Your task to perform on an android device: Empty the shopping cart on costco. Search for "razer blade" on costco, select the first entry, and add it to the cart. Image 0: 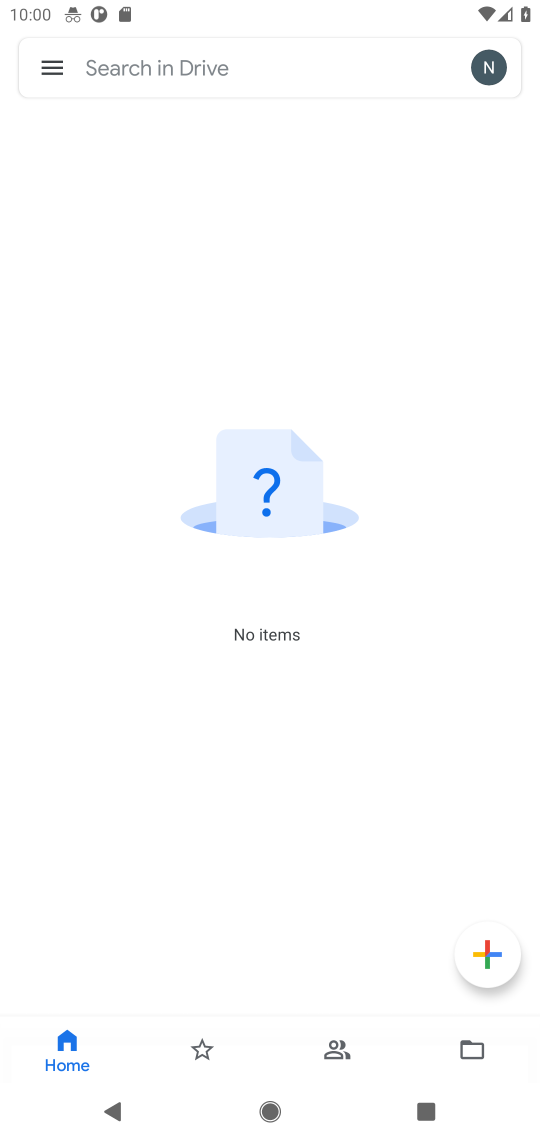
Step 0: press home button
Your task to perform on an android device: Empty the shopping cart on costco. Search for "razer blade" on costco, select the first entry, and add it to the cart. Image 1: 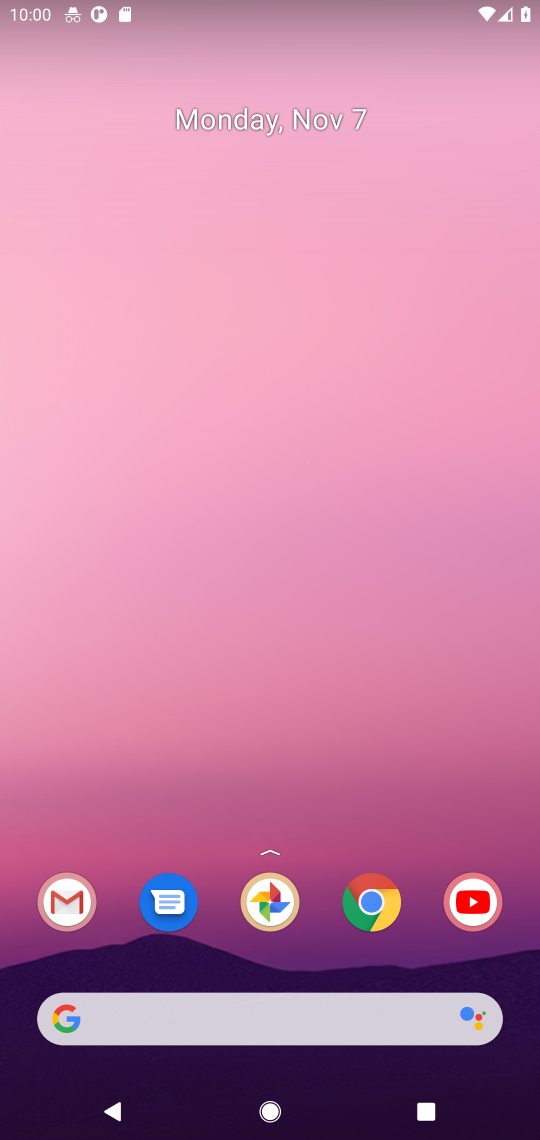
Step 1: click (375, 911)
Your task to perform on an android device: Empty the shopping cart on costco. Search for "razer blade" on costco, select the first entry, and add it to the cart. Image 2: 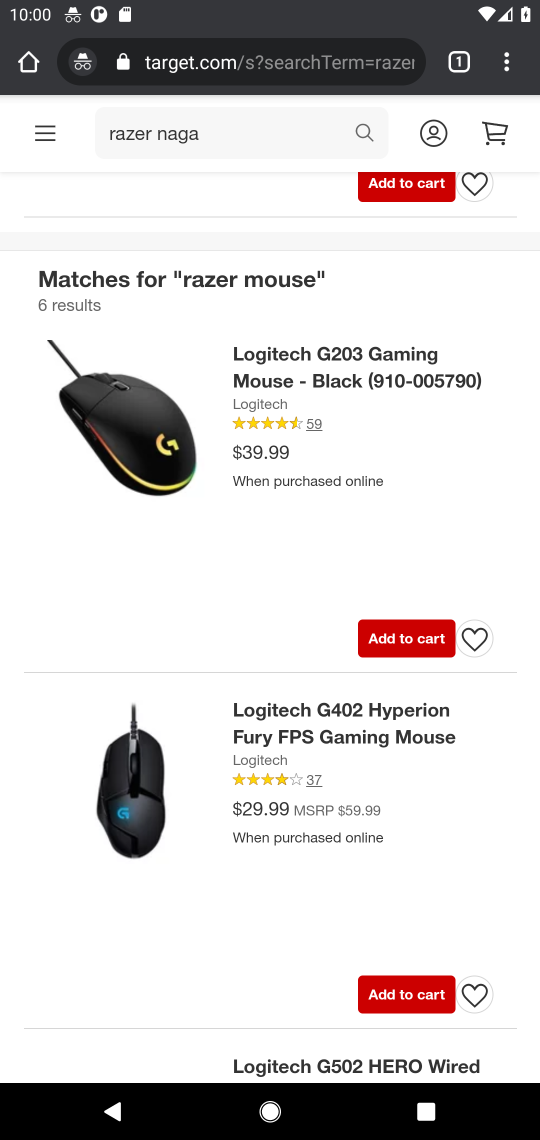
Step 2: click (255, 64)
Your task to perform on an android device: Empty the shopping cart on costco. Search for "razer blade" on costco, select the first entry, and add it to the cart. Image 3: 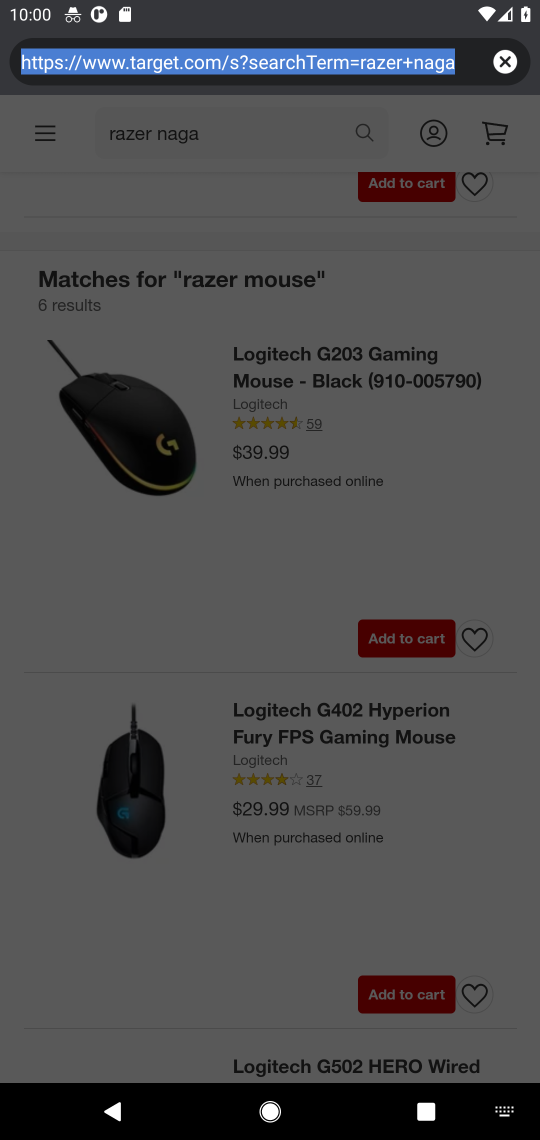
Step 3: type "costco.com"
Your task to perform on an android device: Empty the shopping cart on costco. Search for "razer blade" on costco, select the first entry, and add it to the cart. Image 4: 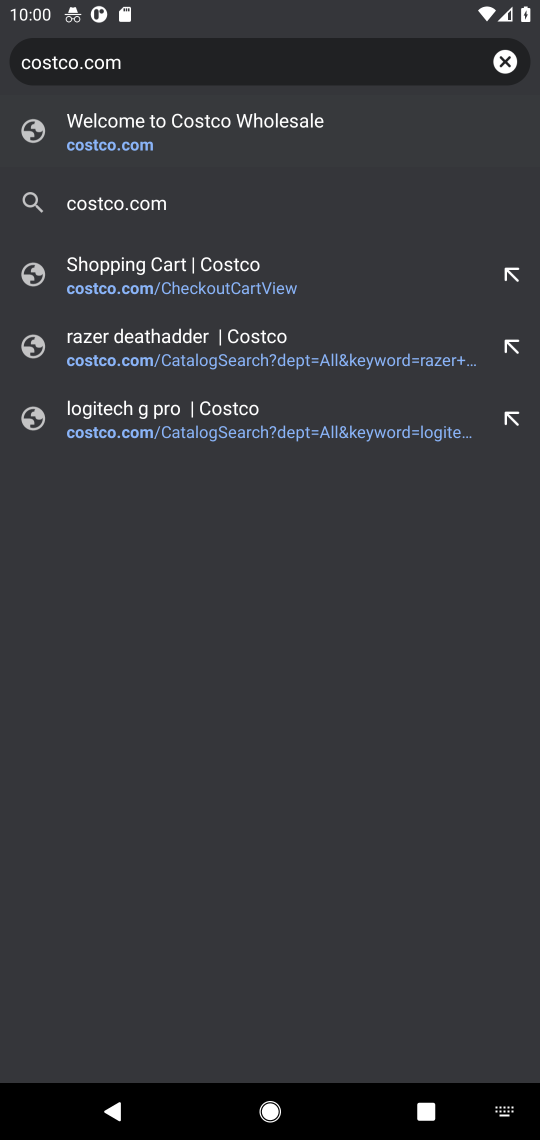
Step 4: click (90, 140)
Your task to perform on an android device: Empty the shopping cart on costco. Search for "razer blade" on costco, select the first entry, and add it to the cart. Image 5: 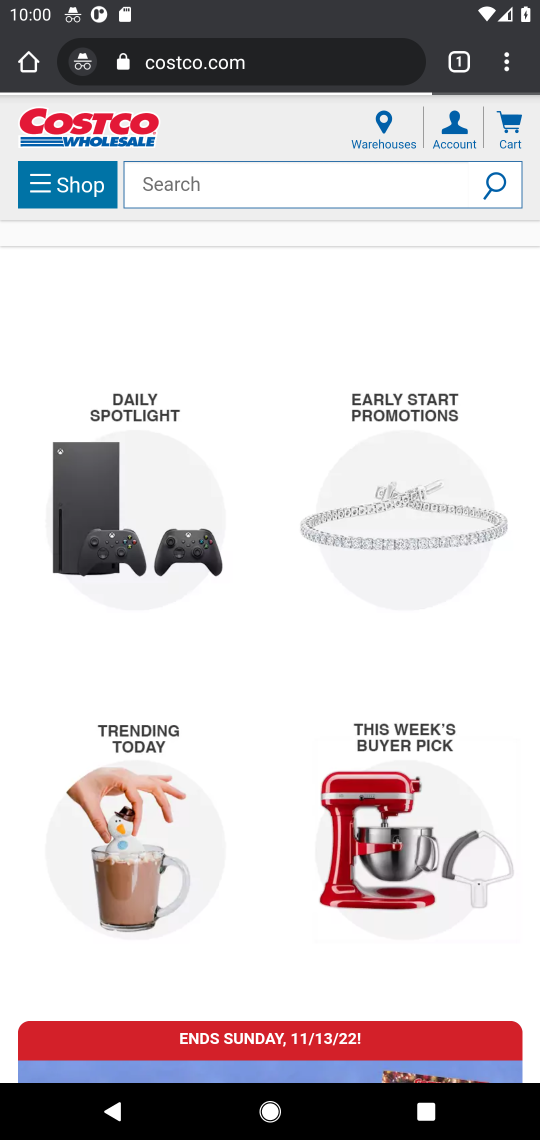
Step 5: click (509, 132)
Your task to perform on an android device: Empty the shopping cart on costco. Search for "razer blade" on costco, select the first entry, and add it to the cart. Image 6: 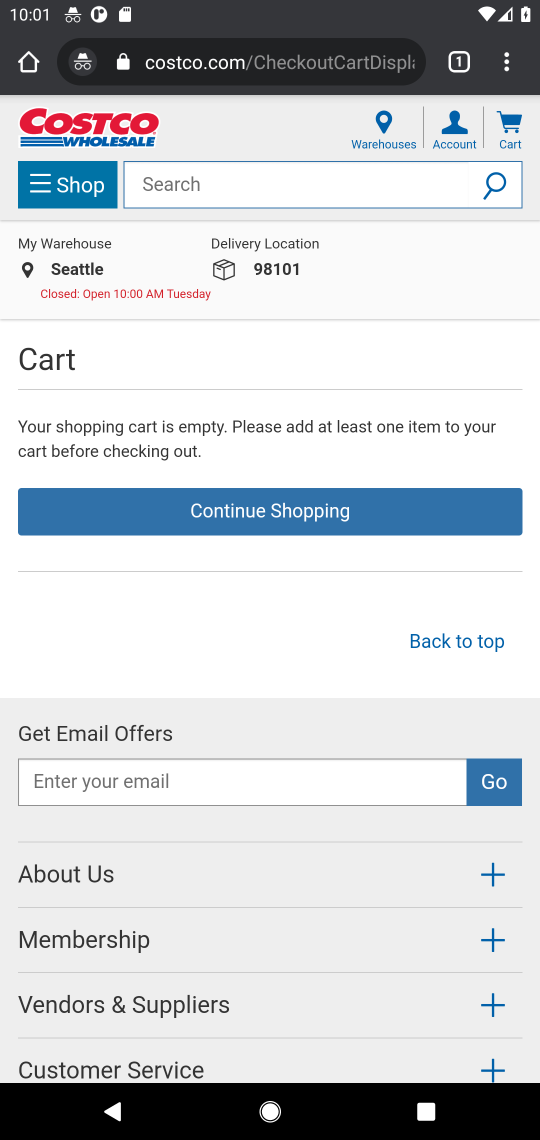
Step 6: click (261, 195)
Your task to perform on an android device: Empty the shopping cart on costco. Search for "razer blade" on costco, select the first entry, and add it to the cart. Image 7: 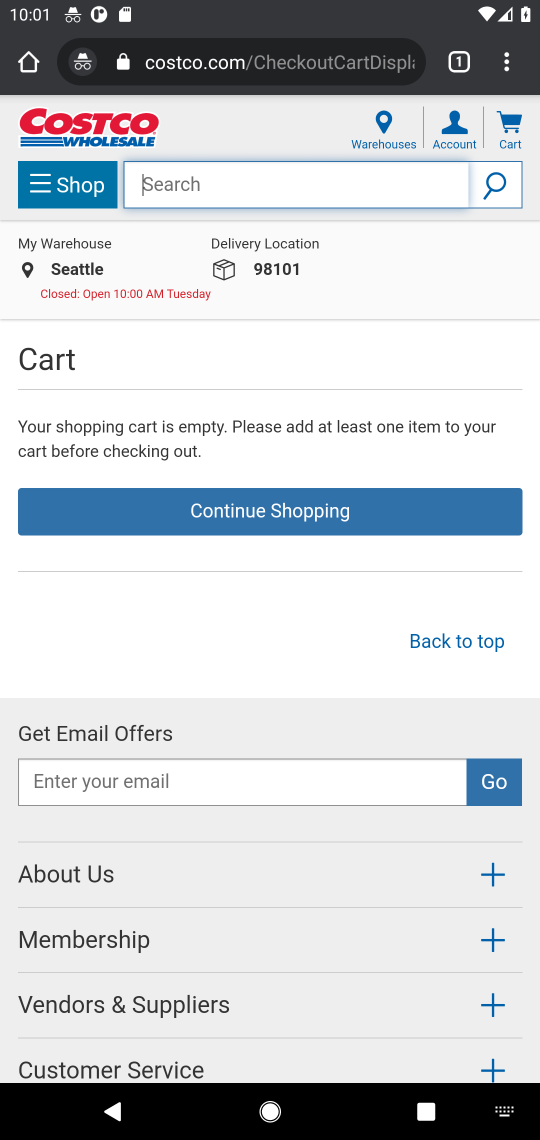
Step 7: type "razer blade"
Your task to perform on an android device: Empty the shopping cart on costco. Search for "razer blade" on costco, select the first entry, and add it to the cart. Image 8: 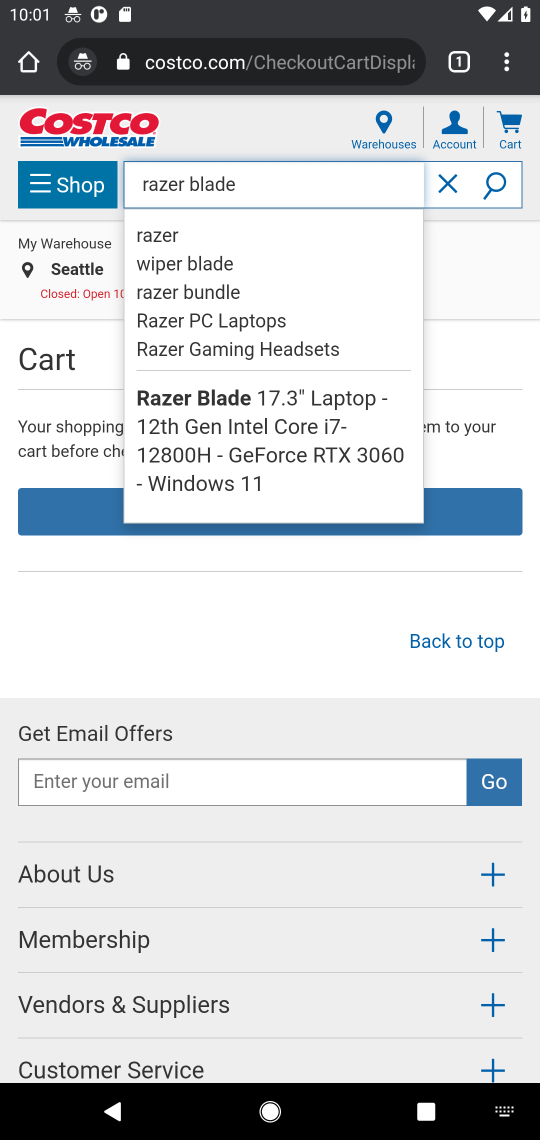
Step 8: click (486, 183)
Your task to perform on an android device: Empty the shopping cart on costco. Search for "razer blade" on costco, select the first entry, and add it to the cart. Image 9: 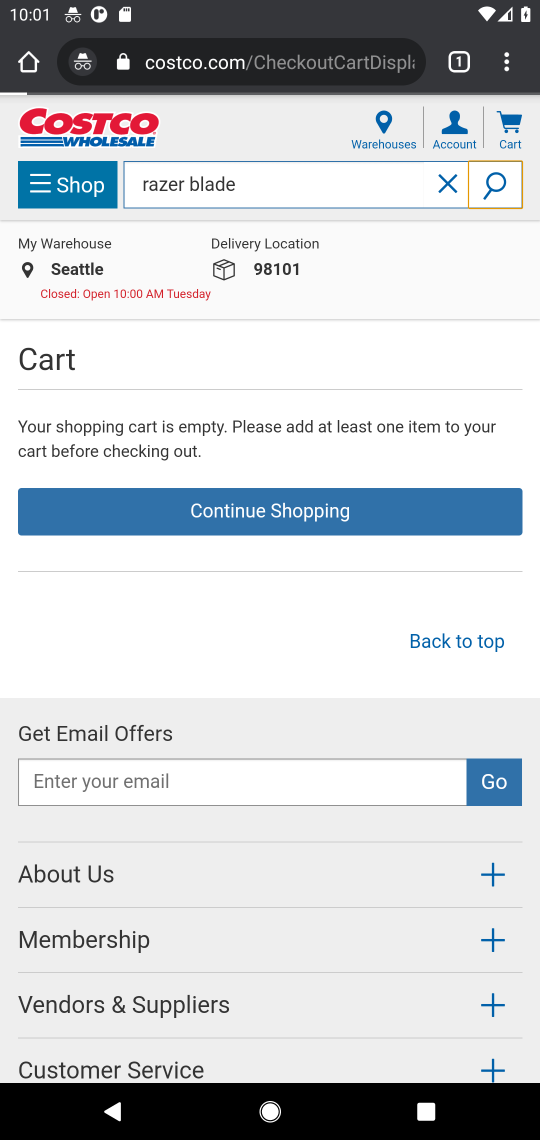
Step 9: click (494, 197)
Your task to perform on an android device: Empty the shopping cart on costco. Search for "razer blade" on costco, select the first entry, and add it to the cart. Image 10: 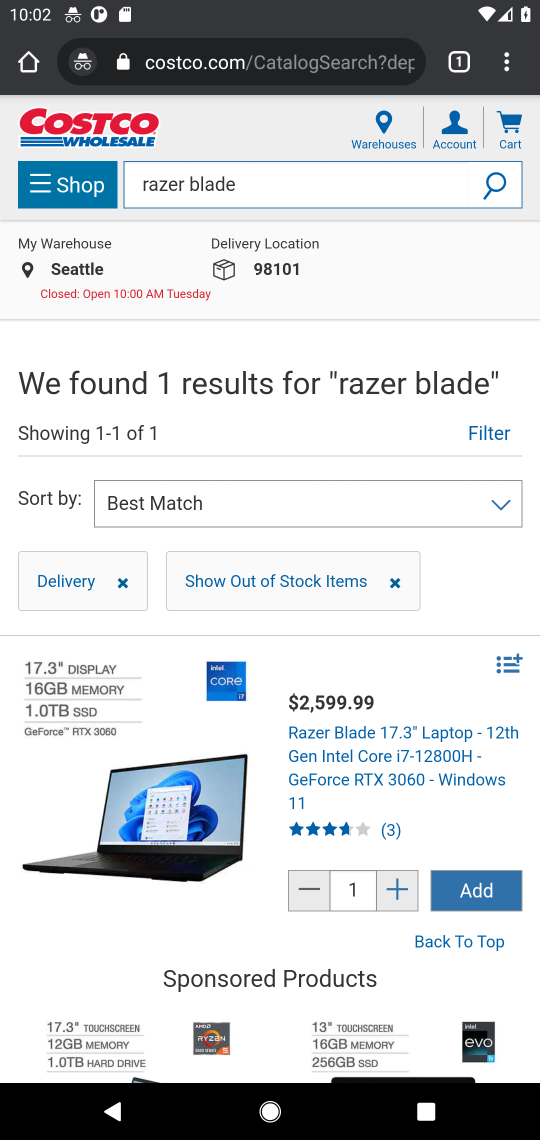
Step 10: click (256, 791)
Your task to perform on an android device: Empty the shopping cart on costco. Search for "razer blade" on costco, select the first entry, and add it to the cart. Image 11: 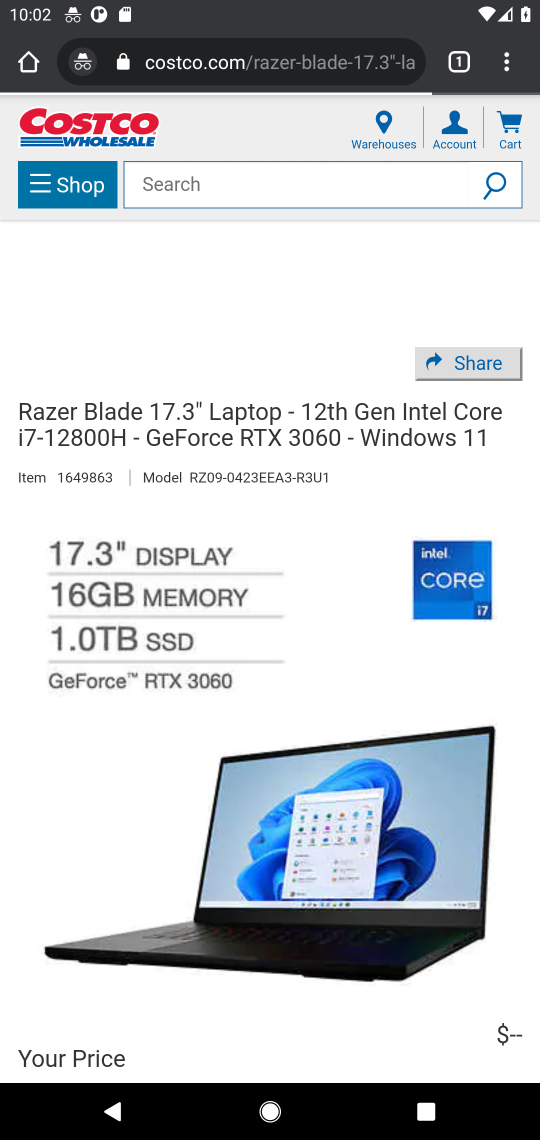
Step 11: drag from (257, 808) to (252, 342)
Your task to perform on an android device: Empty the shopping cart on costco. Search for "razer blade" on costco, select the first entry, and add it to the cart. Image 12: 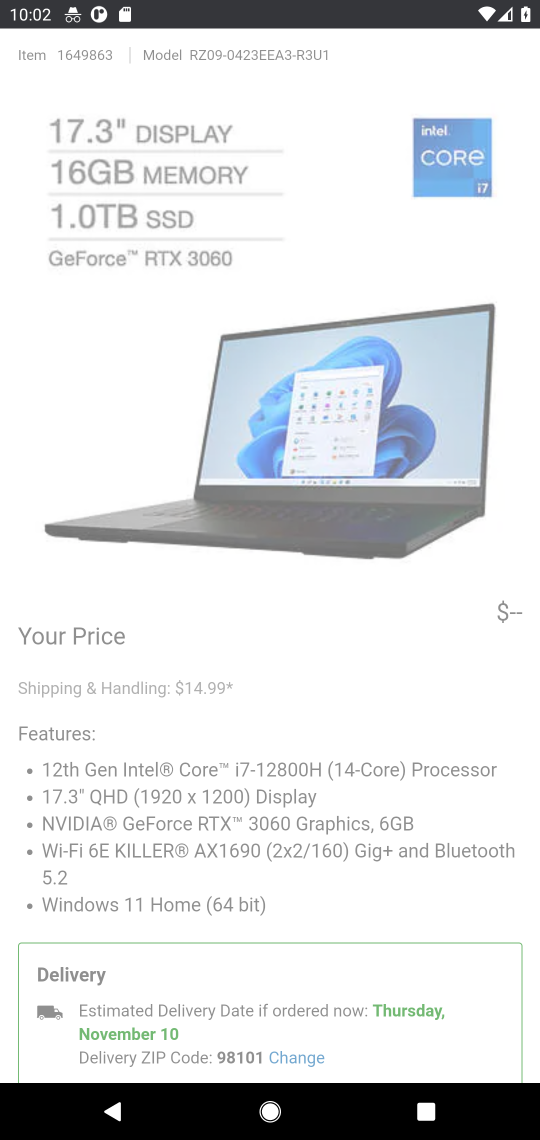
Step 12: drag from (351, 788) to (350, 431)
Your task to perform on an android device: Empty the shopping cart on costco. Search for "razer blade" on costco, select the first entry, and add it to the cart. Image 13: 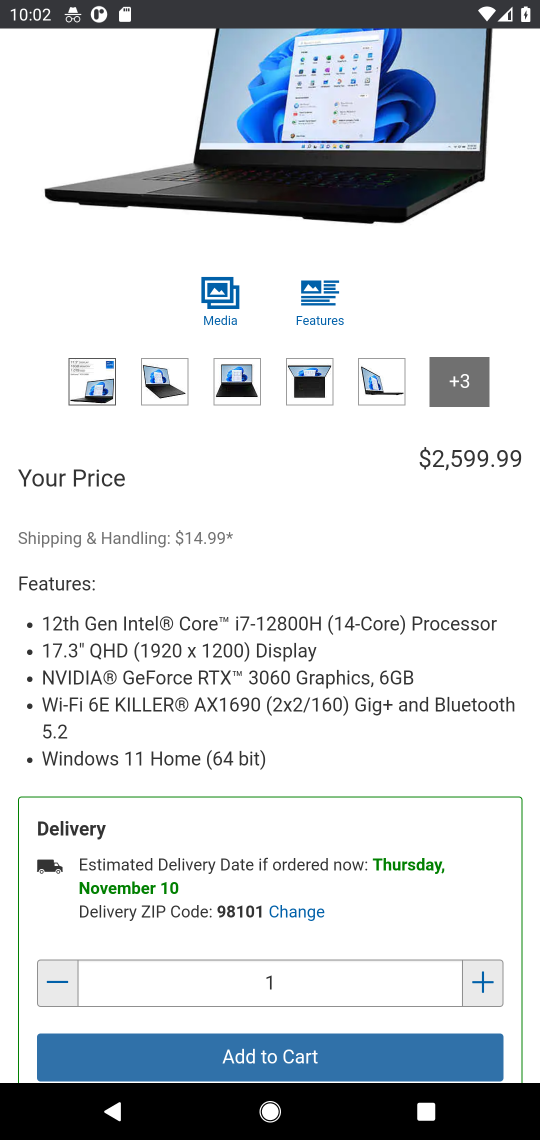
Step 13: click (246, 970)
Your task to perform on an android device: Empty the shopping cart on costco. Search for "razer blade" on costco, select the first entry, and add it to the cart. Image 14: 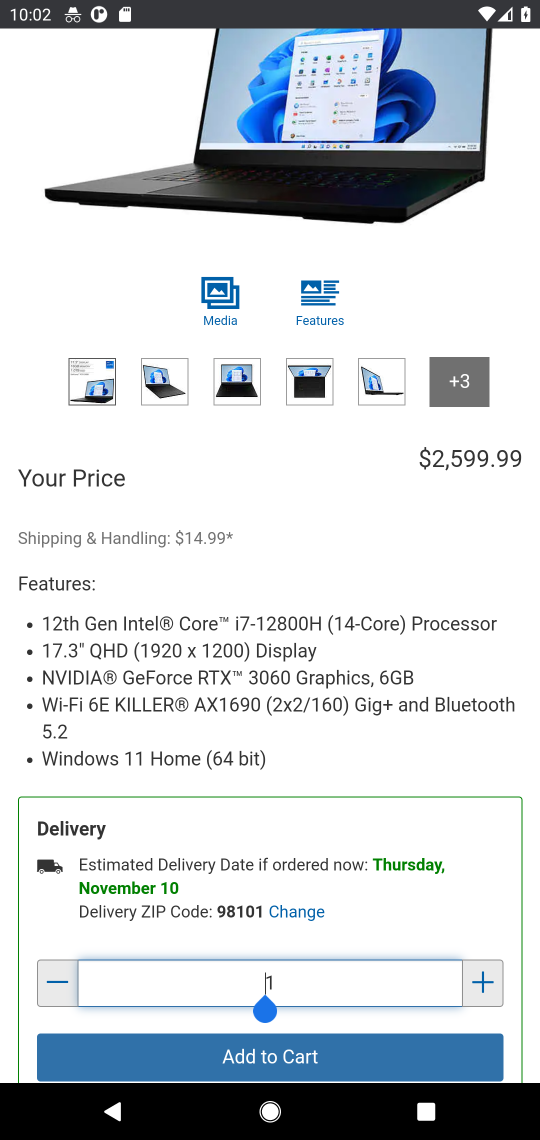
Step 14: click (234, 1054)
Your task to perform on an android device: Empty the shopping cart on costco. Search for "razer blade" on costco, select the first entry, and add it to the cart. Image 15: 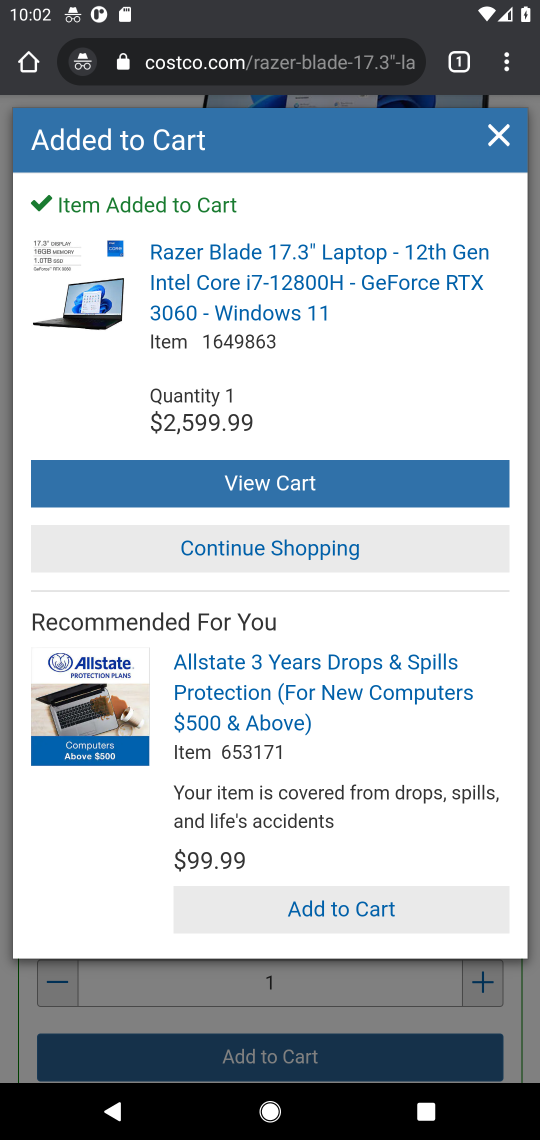
Step 15: task complete